Your task to perform on an android device: Go to ESPN.com Image 0: 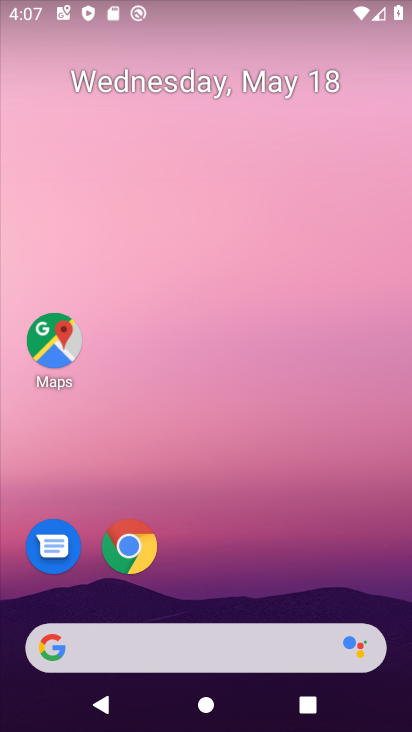
Step 0: click (139, 551)
Your task to perform on an android device: Go to ESPN.com Image 1: 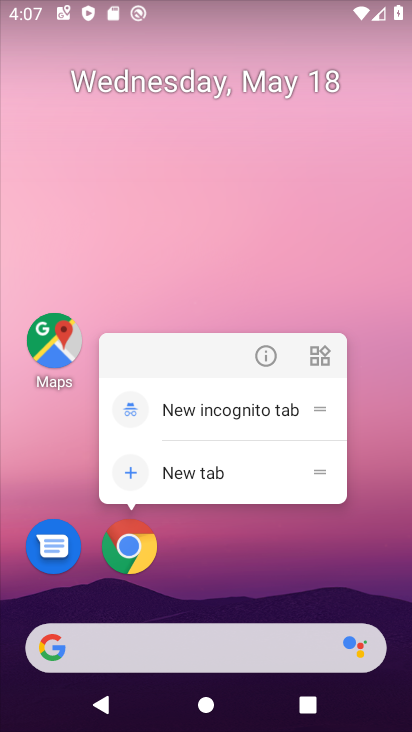
Step 1: click (140, 550)
Your task to perform on an android device: Go to ESPN.com Image 2: 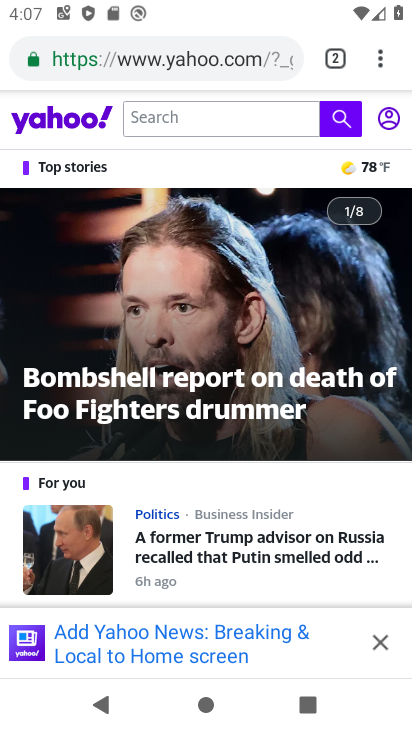
Step 2: click (157, 57)
Your task to perform on an android device: Go to ESPN.com Image 3: 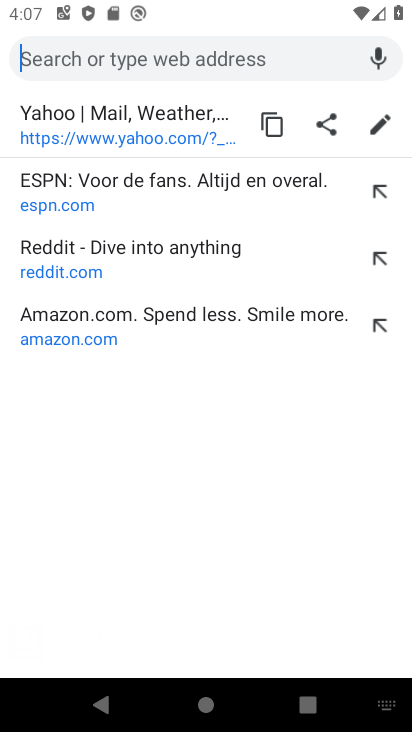
Step 3: type "ESPN.com"
Your task to perform on an android device: Go to ESPN.com Image 4: 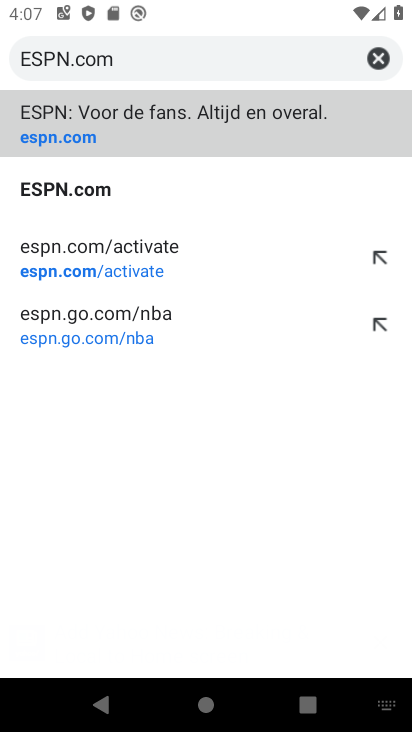
Step 4: click (85, 193)
Your task to perform on an android device: Go to ESPN.com Image 5: 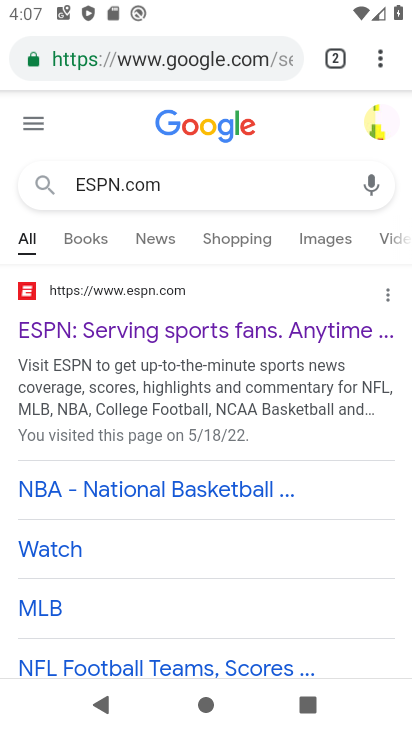
Step 5: task complete